Your task to perform on an android device: empty trash in google photos Image 0: 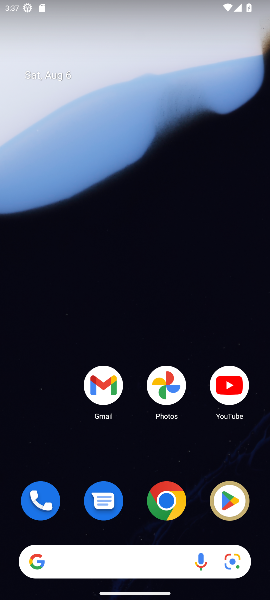
Step 0: click (99, 390)
Your task to perform on an android device: empty trash in google photos Image 1: 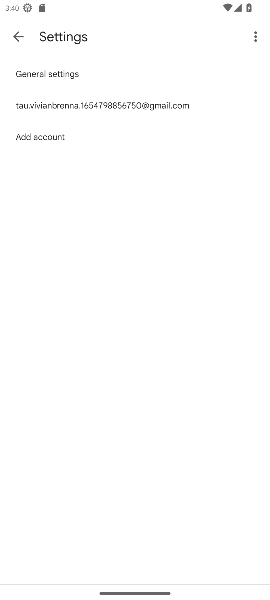
Step 1: click (17, 34)
Your task to perform on an android device: empty trash in google photos Image 2: 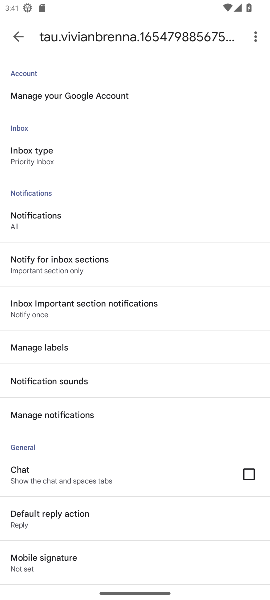
Step 2: click (14, 37)
Your task to perform on an android device: empty trash in google photos Image 3: 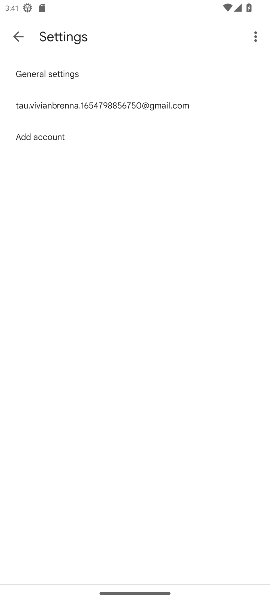
Step 3: click (14, 37)
Your task to perform on an android device: empty trash in google photos Image 4: 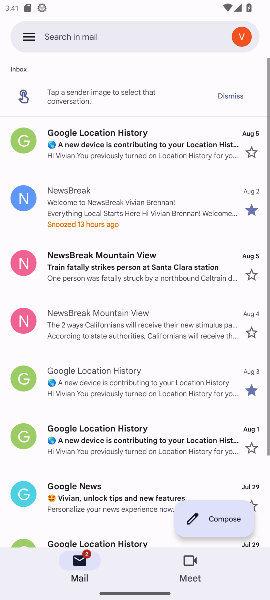
Step 4: click (19, 38)
Your task to perform on an android device: empty trash in google photos Image 5: 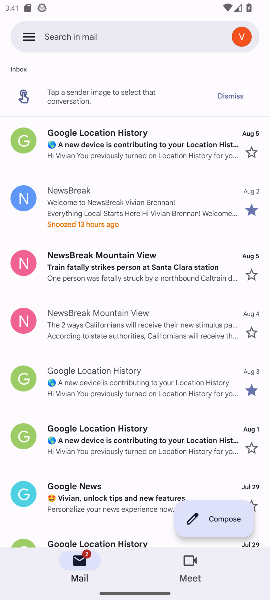
Step 5: click (33, 36)
Your task to perform on an android device: empty trash in google photos Image 6: 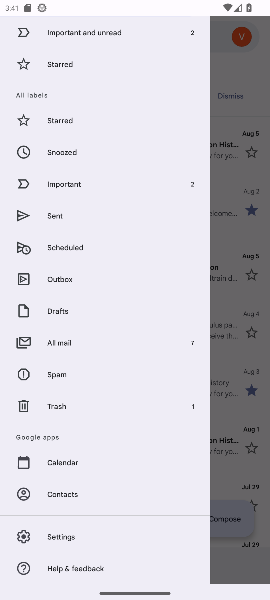
Step 6: click (64, 403)
Your task to perform on an android device: empty trash in google photos Image 7: 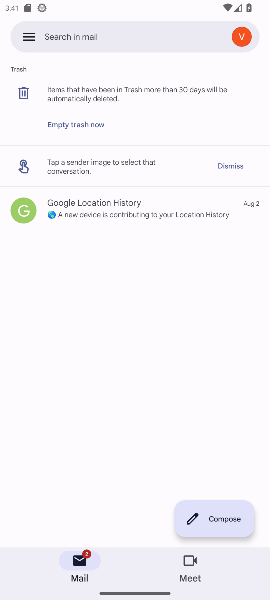
Step 7: click (78, 127)
Your task to perform on an android device: empty trash in google photos Image 8: 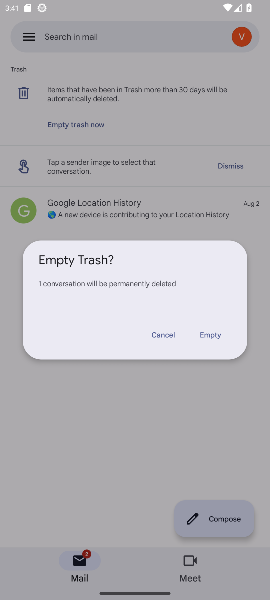
Step 8: click (218, 337)
Your task to perform on an android device: empty trash in google photos Image 9: 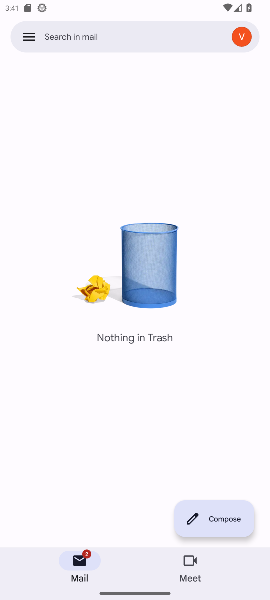
Step 9: task complete